Your task to perform on an android device: see tabs open on other devices in the chrome app Image 0: 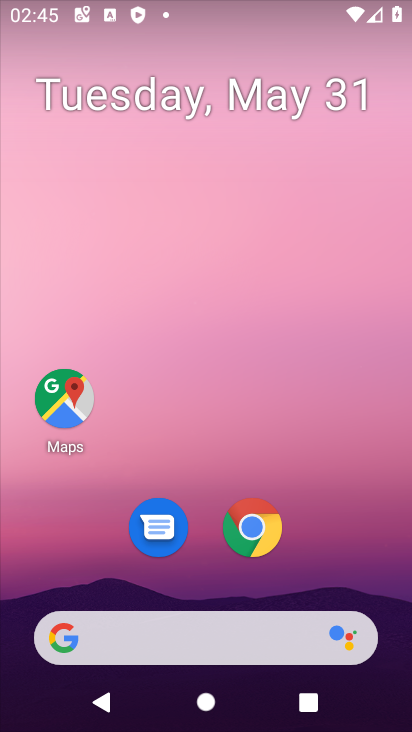
Step 0: click (254, 529)
Your task to perform on an android device: see tabs open on other devices in the chrome app Image 1: 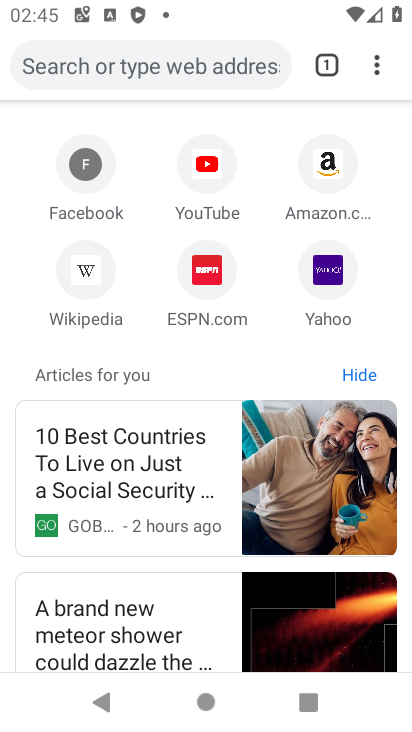
Step 1: click (370, 66)
Your task to perform on an android device: see tabs open on other devices in the chrome app Image 2: 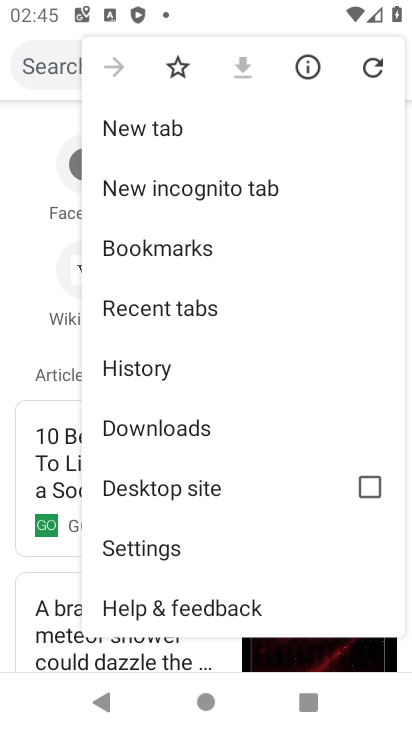
Step 2: click (156, 300)
Your task to perform on an android device: see tabs open on other devices in the chrome app Image 3: 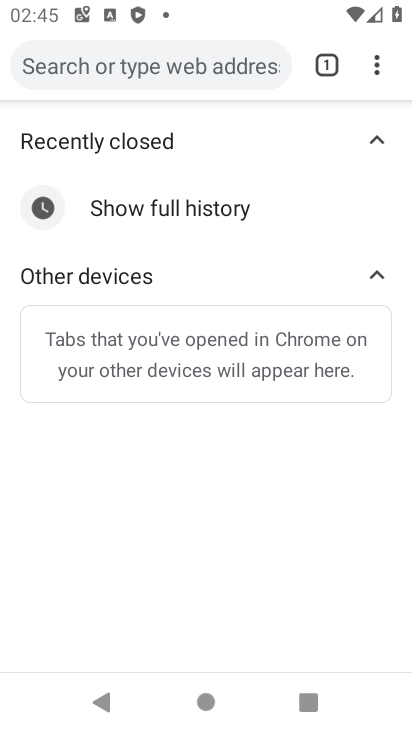
Step 3: task complete